Your task to perform on an android device: Clear the shopping cart on walmart. Add "razer deathadder" to the cart on walmart Image 0: 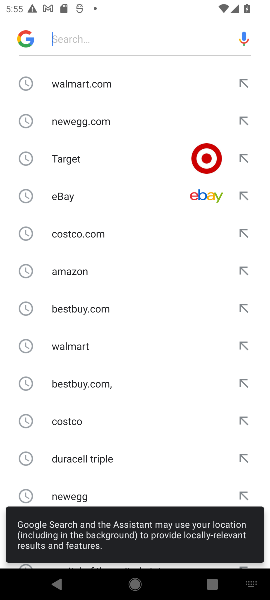
Step 0: press home button
Your task to perform on an android device: Clear the shopping cart on walmart. Add "razer deathadder" to the cart on walmart Image 1: 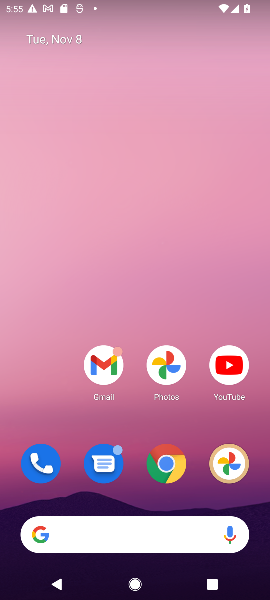
Step 1: click (167, 452)
Your task to perform on an android device: Clear the shopping cart on walmart. Add "razer deathadder" to the cart on walmart Image 2: 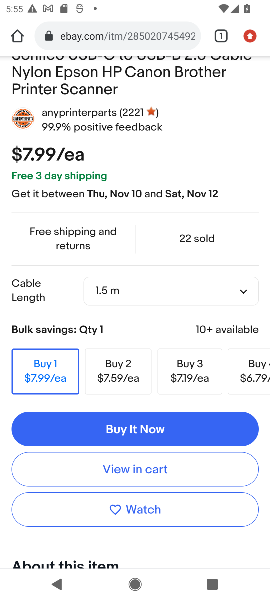
Step 2: click (88, 28)
Your task to perform on an android device: Clear the shopping cart on walmart. Add "razer deathadder" to the cart on walmart Image 3: 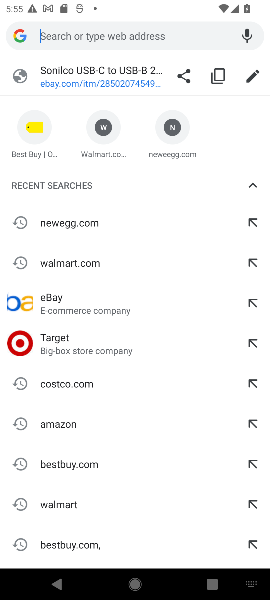
Step 3: click (87, 265)
Your task to perform on an android device: Clear the shopping cart on walmart. Add "razer deathadder" to the cart on walmart Image 4: 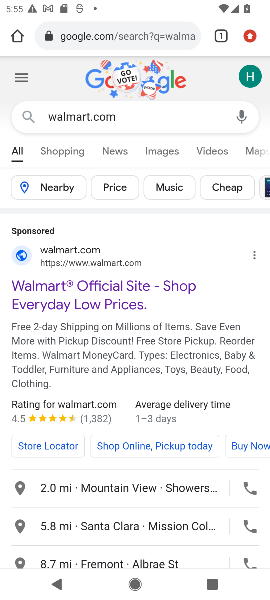
Step 4: click (46, 290)
Your task to perform on an android device: Clear the shopping cart on walmart. Add "razer deathadder" to the cart on walmart Image 5: 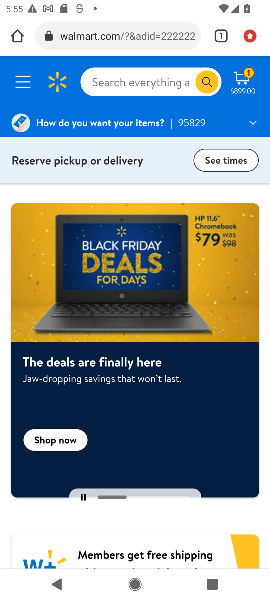
Step 5: click (244, 80)
Your task to perform on an android device: Clear the shopping cart on walmart. Add "razer deathadder" to the cart on walmart Image 6: 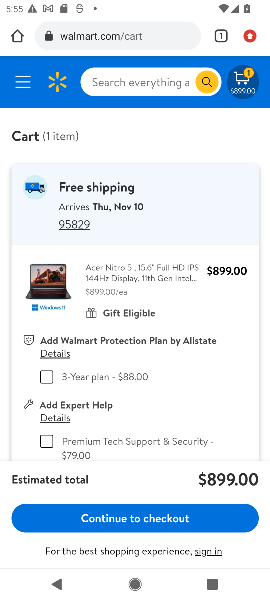
Step 6: drag from (161, 419) to (161, 165)
Your task to perform on an android device: Clear the shopping cart on walmart. Add "razer deathadder" to the cart on walmart Image 7: 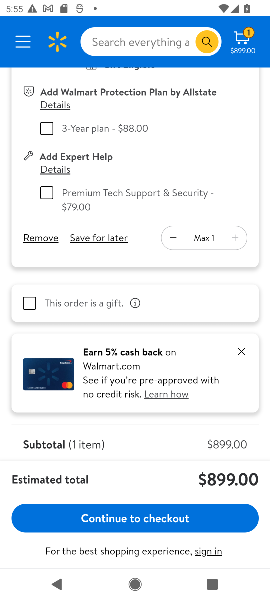
Step 7: click (35, 240)
Your task to perform on an android device: Clear the shopping cart on walmart. Add "razer deathadder" to the cart on walmart Image 8: 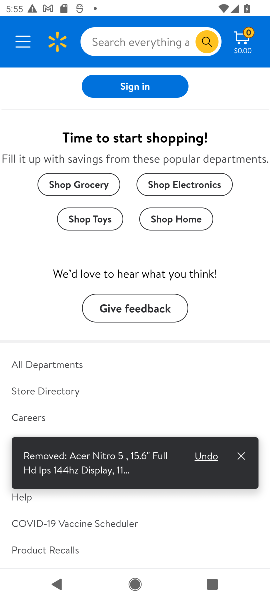
Step 8: click (152, 35)
Your task to perform on an android device: Clear the shopping cart on walmart. Add "razer deathadder" to the cart on walmart Image 9: 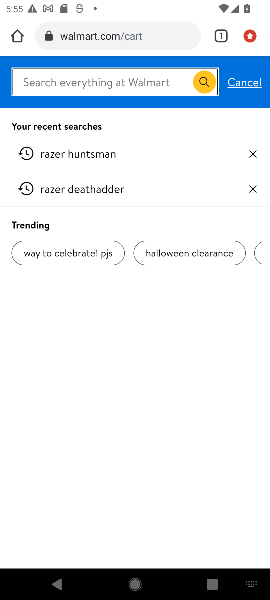
Step 9: click (99, 185)
Your task to perform on an android device: Clear the shopping cart on walmart. Add "razer deathadder" to the cart on walmart Image 10: 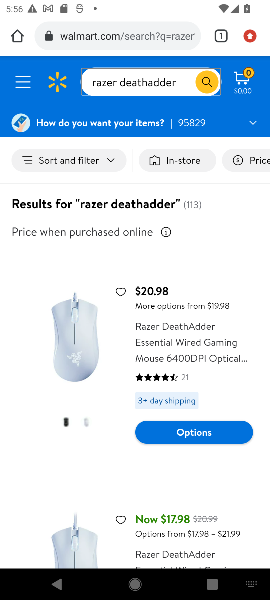
Step 10: click (153, 437)
Your task to perform on an android device: Clear the shopping cart on walmart. Add "razer deathadder" to the cart on walmart Image 11: 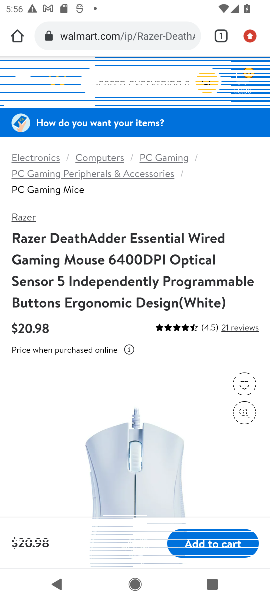
Step 11: click (233, 540)
Your task to perform on an android device: Clear the shopping cart on walmart. Add "razer deathadder" to the cart on walmart Image 12: 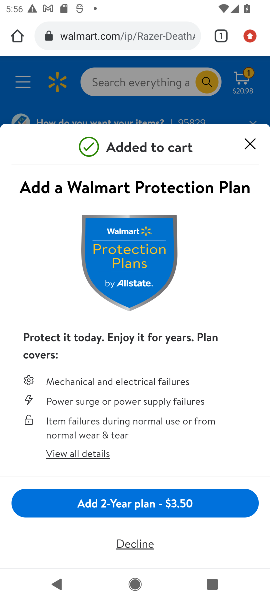
Step 12: task complete